Your task to perform on an android device: manage bookmarks in the chrome app Image 0: 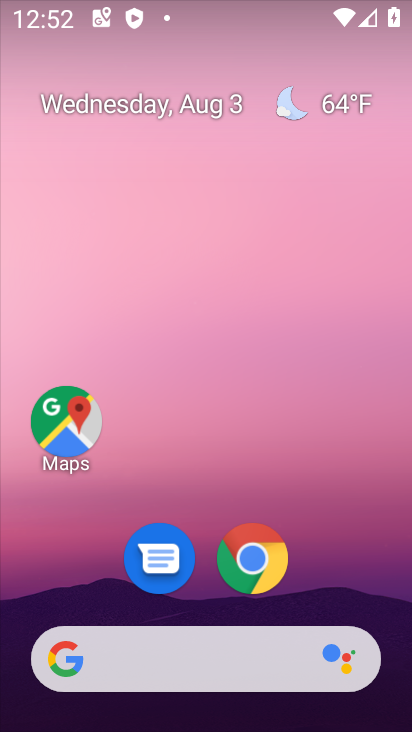
Step 0: drag from (388, 570) to (355, 313)
Your task to perform on an android device: manage bookmarks in the chrome app Image 1: 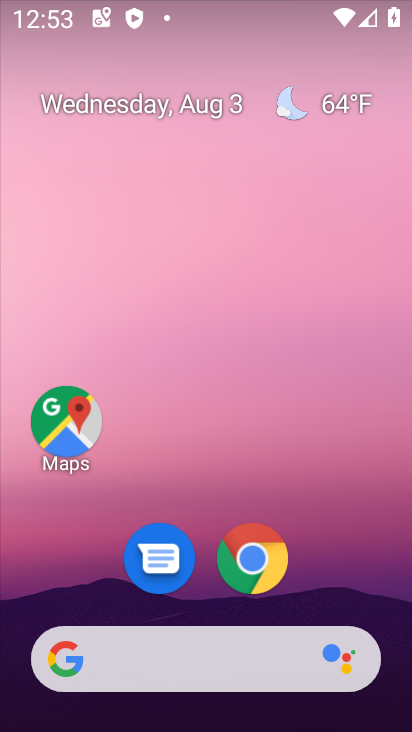
Step 1: click (277, 566)
Your task to perform on an android device: manage bookmarks in the chrome app Image 2: 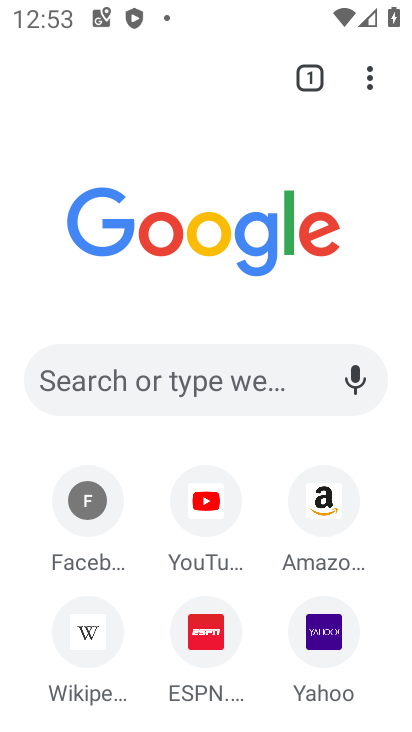
Step 2: click (371, 69)
Your task to perform on an android device: manage bookmarks in the chrome app Image 3: 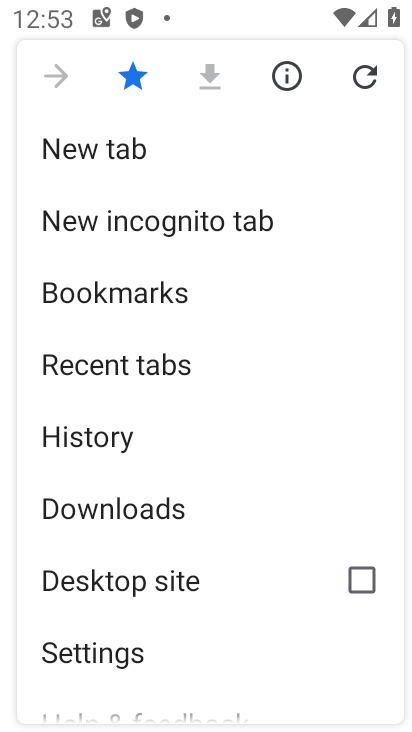
Step 3: click (173, 296)
Your task to perform on an android device: manage bookmarks in the chrome app Image 4: 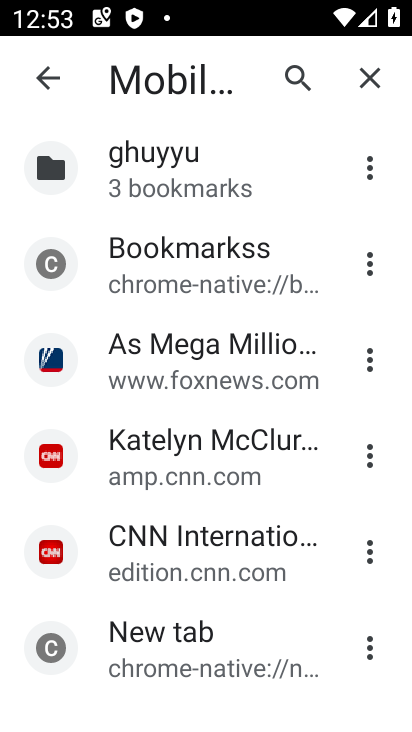
Step 4: click (261, 358)
Your task to perform on an android device: manage bookmarks in the chrome app Image 5: 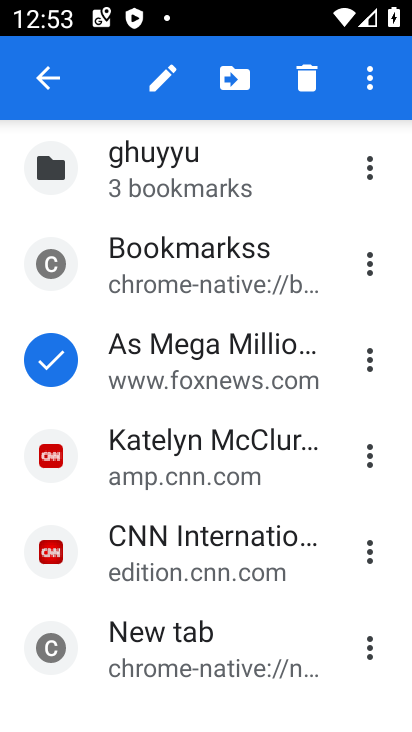
Step 5: click (46, 460)
Your task to perform on an android device: manage bookmarks in the chrome app Image 6: 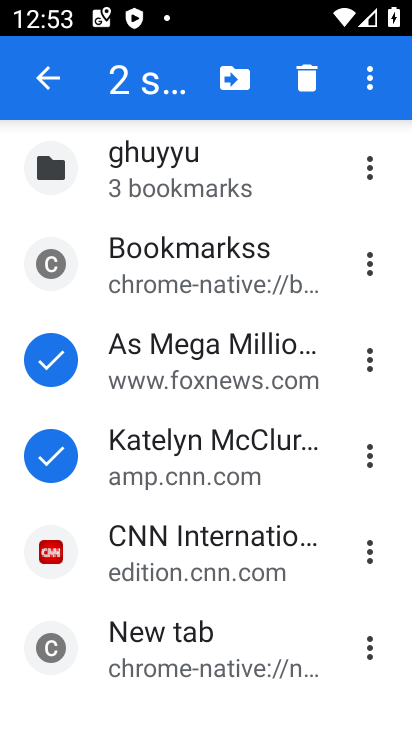
Step 6: click (243, 73)
Your task to perform on an android device: manage bookmarks in the chrome app Image 7: 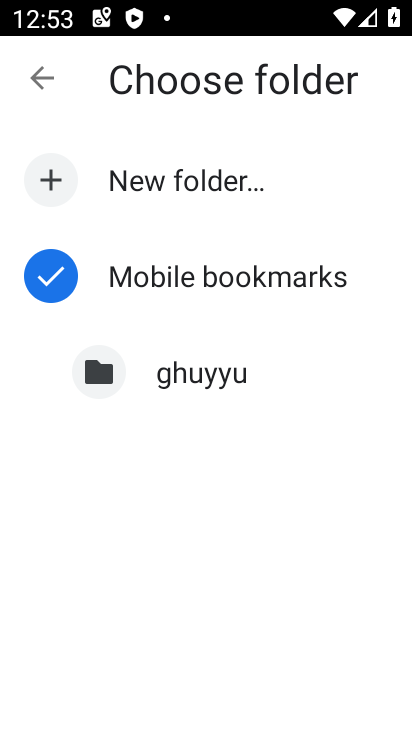
Step 7: click (308, 383)
Your task to perform on an android device: manage bookmarks in the chrome app Image 8: 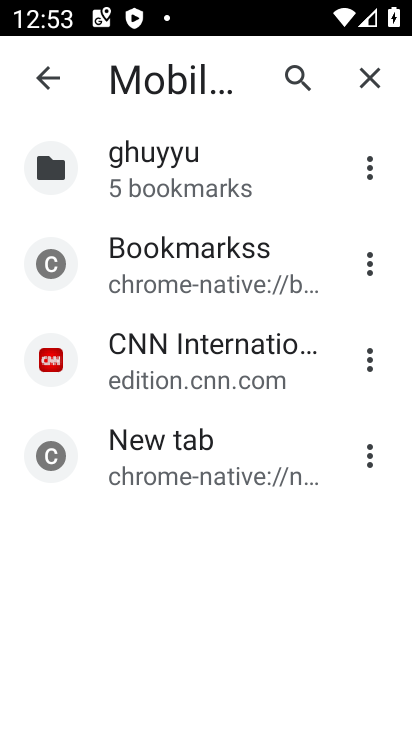
Step 8: click (308, 383)
Your task to perform on an android device: manage bookmarks in the chrome app Image 9: 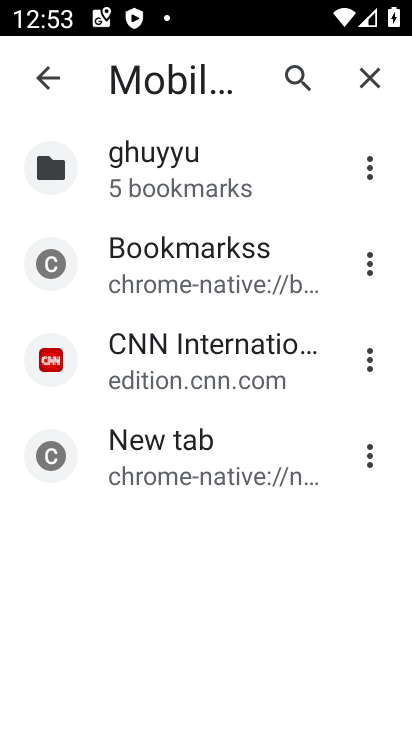
Step 9: click (308, 383)
Your task to perform on an android device: manage bookmarks in the chrome app Image 10: 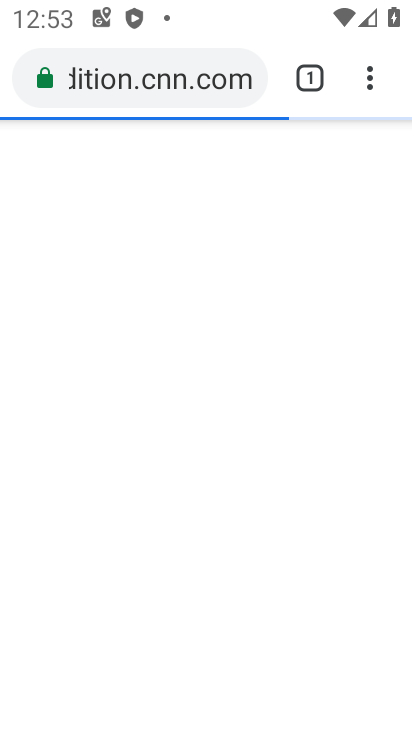
Step 10: task complete